Your task to perform on an android device: Open Google Image 0: 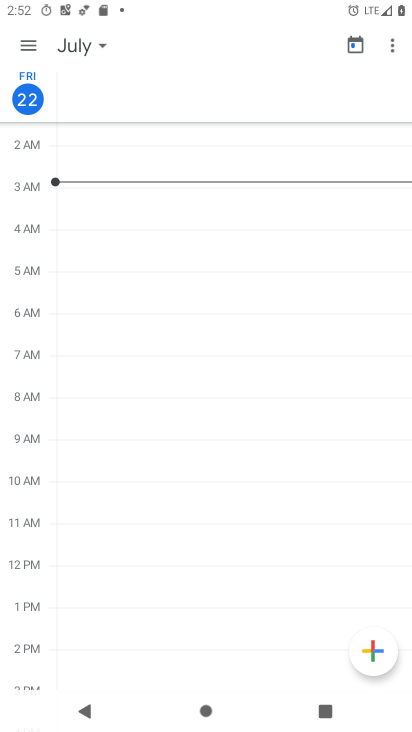
Step 0: press home button
Your task to perform on an android device: Open Google Image 1: 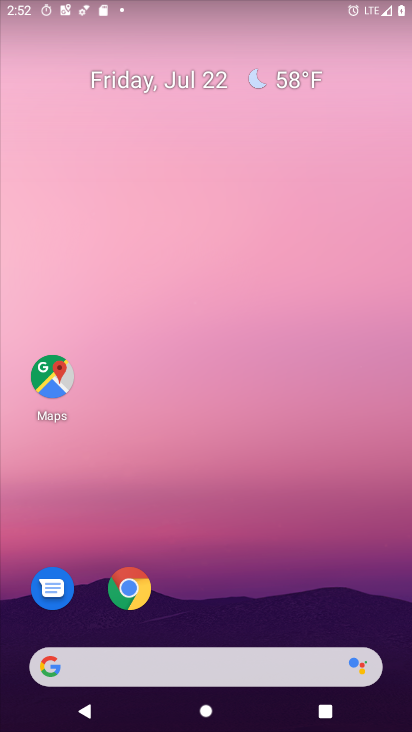
Step 1: drag from (267, 573) to (253, 94)
Your task to perform on an android device: Open Google Image 2: 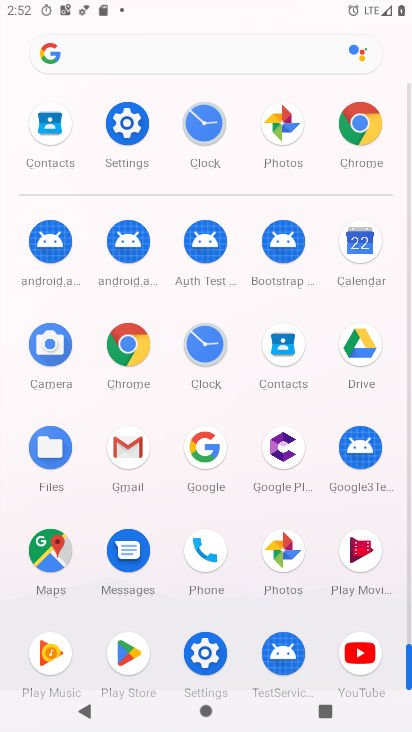
Step 2: click (199, 443)
Your task to perform on an android device: Open Google Image 3: 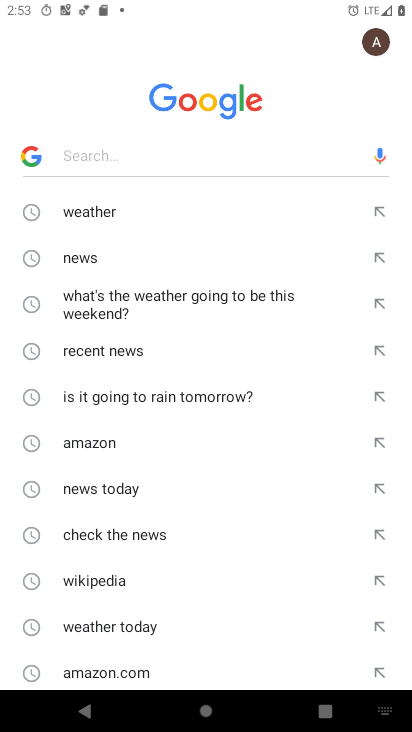
Step 3: task complete